Your task to perform on an android device: turn on airplane mode Image 0: 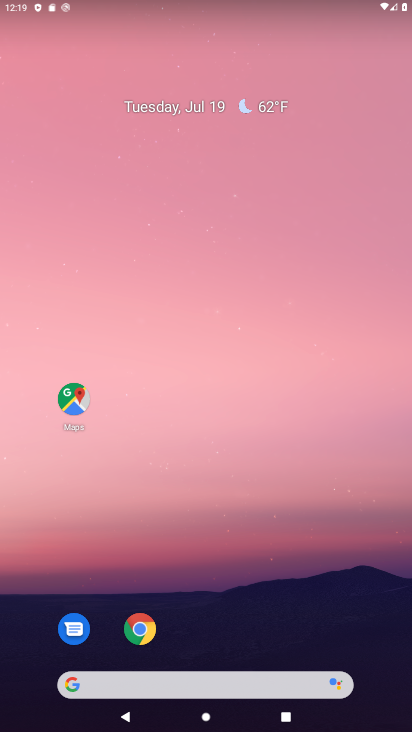
Step 0: drag from (214, 657) to (218, 0)
Your task to perform on an android device: turn on airplane mode Image 1: 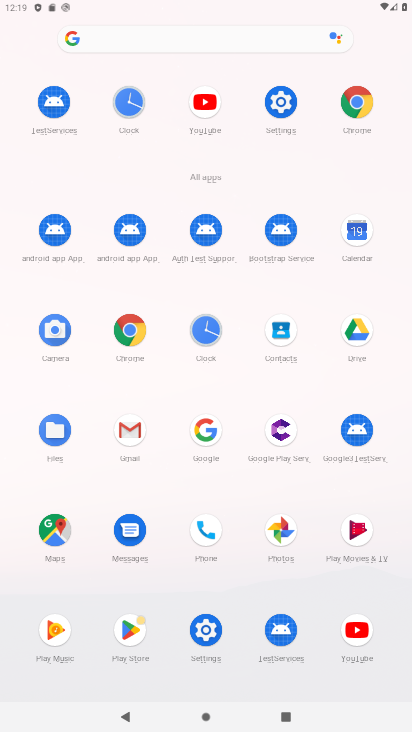
Step 1: click (209, 637)
Your task to perform on an android device: turn on airplane mode Image 2: 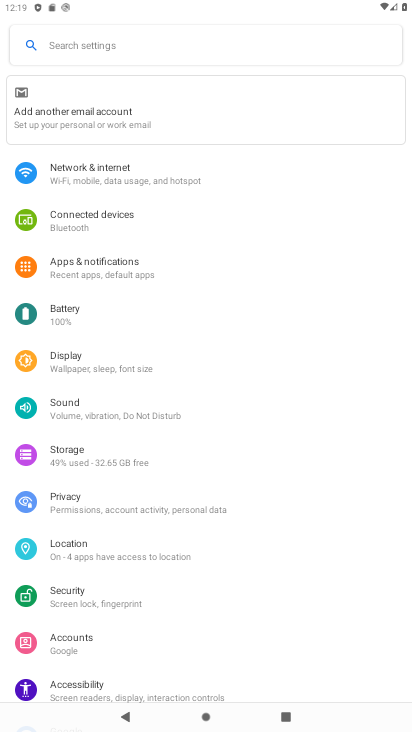
Step 2: click (98, 182)
Your task to perform on an android device: turn on airplane mode Image 3: 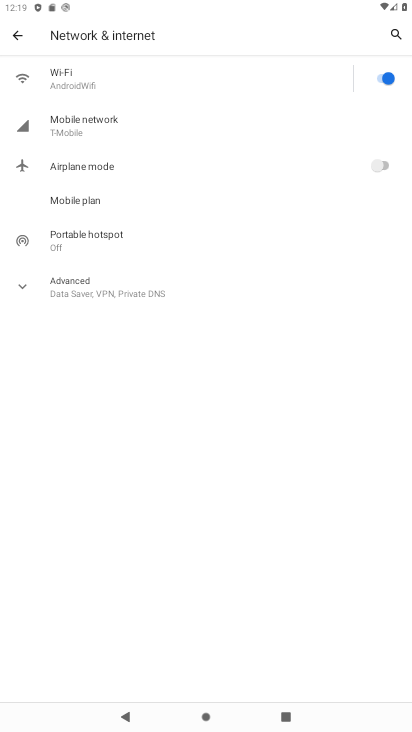
Step 3: click (384, 172)
Your task to perform on an android device: turn on airplane mode Image 4: 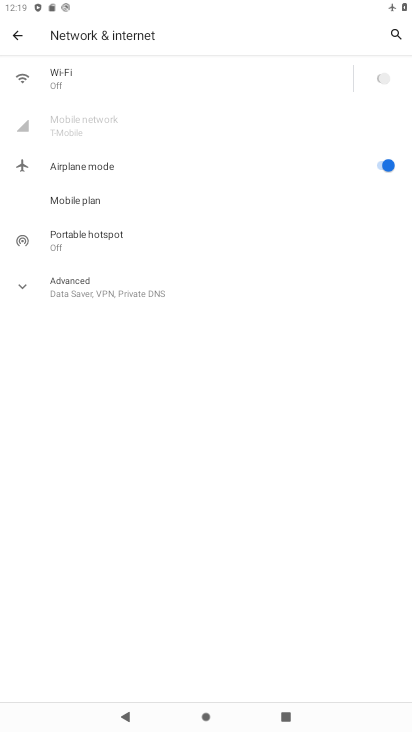
Step 4: task complete